Your task to perform on an android device: uninstall "Google Drive" Image 0: 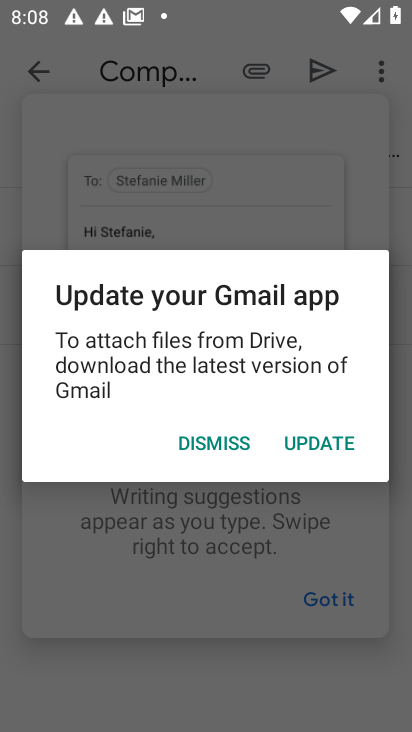
Step 0: task impossible